Your task to perform on an android device: turn on airplane mode Image 0: 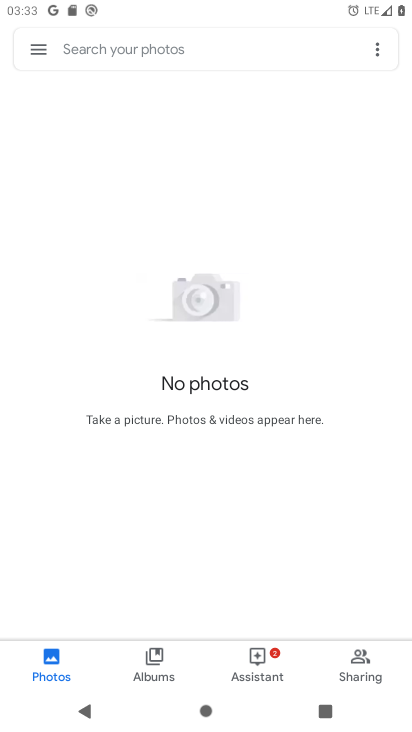
Step 0: drag from (231, 32) to (128, 456)
Your task to perform on an android device: turn on airplane mode Image 1: 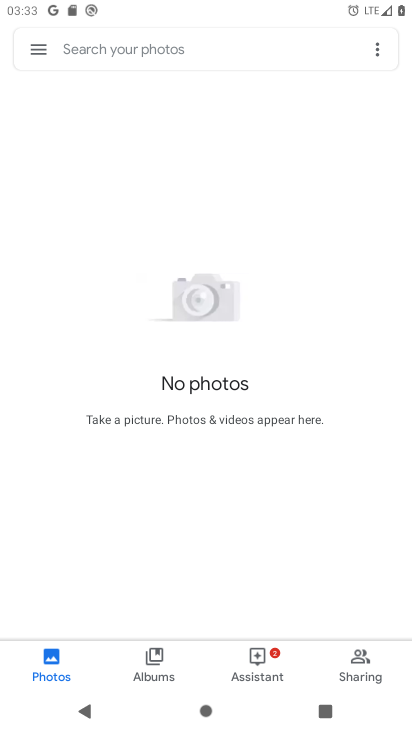
Step 1: drag from (272, 6) to (246, 483)
Your task to perform on an android device: turn on airplane mode Image 2: 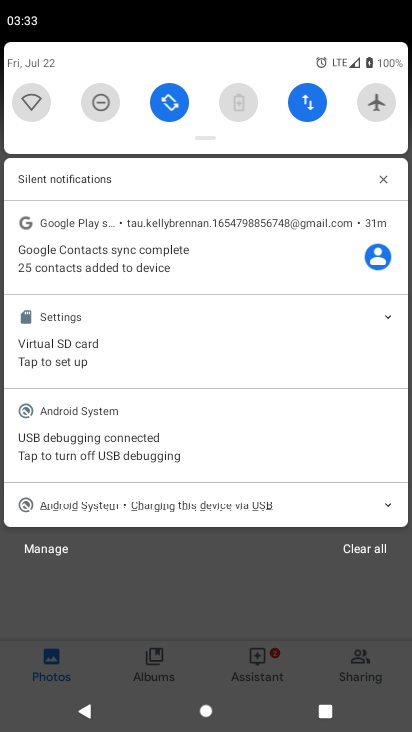
Step 2: click (379, 104)
Your task to perform on an android device: turn on airplane mode Image 3: 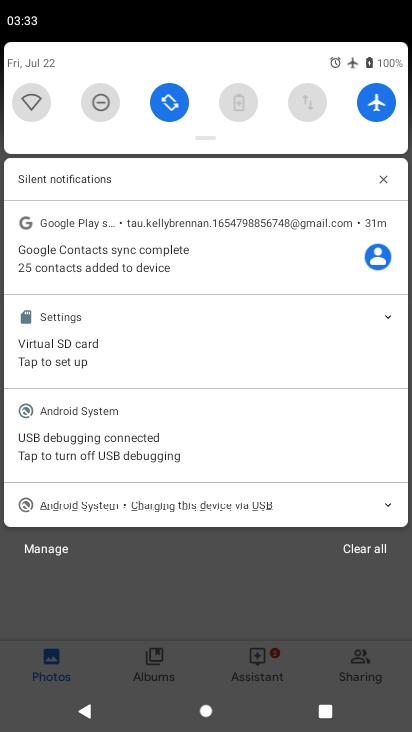
Step 3: task complete